Your task to perform on an android device: set the timer Image 0: 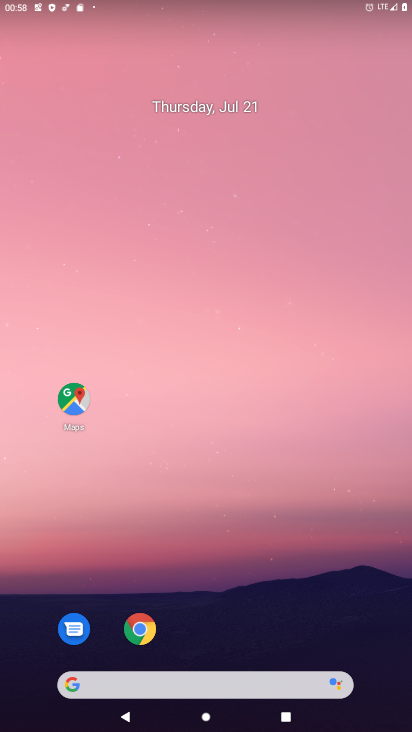
Step 0: drag from (242, 215) to (245, 122)
Your task to perform on an android device: set the timer Image 1: 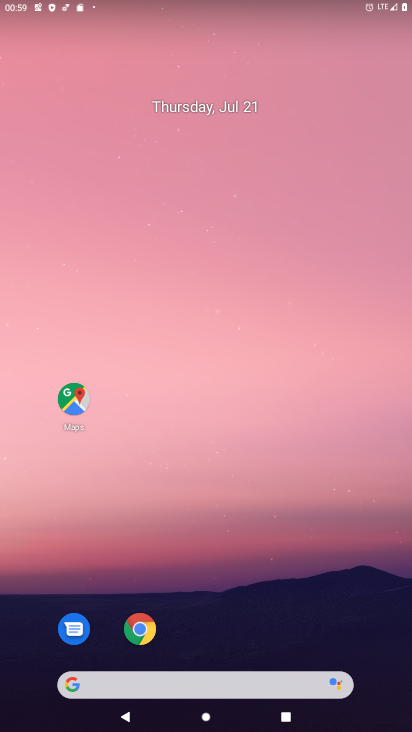
Step 1: drag from (275, 616) to (228, 108)
Your task to perform on an android device: set the timer Image 2: 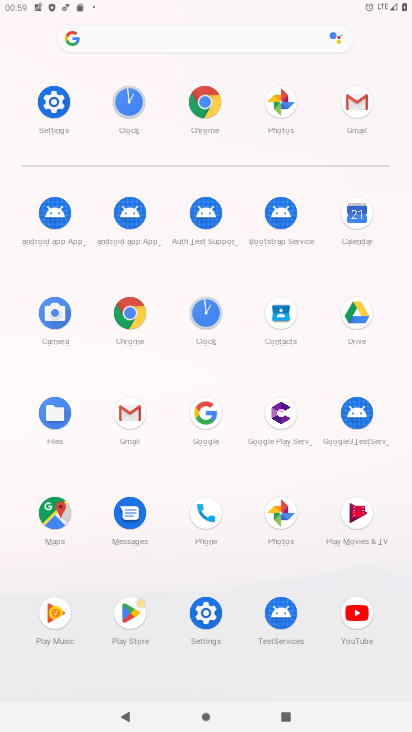
Step 2: click (205, 306)
Your task to perform on an android device: set the timer Image 3: 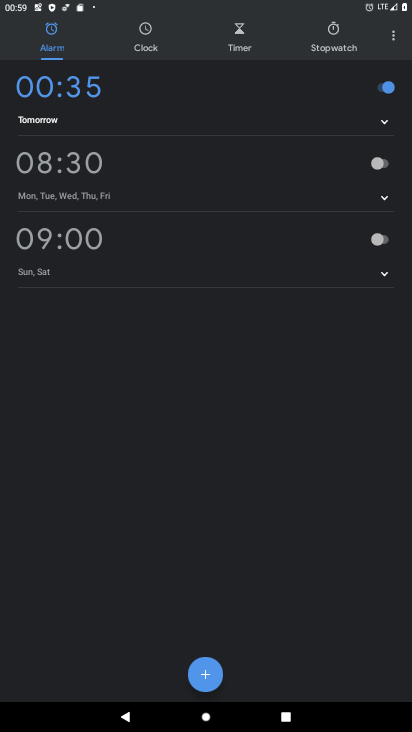
Step 3: click (257, 35)
Your task to perform on an android device: set the timer Image 4: 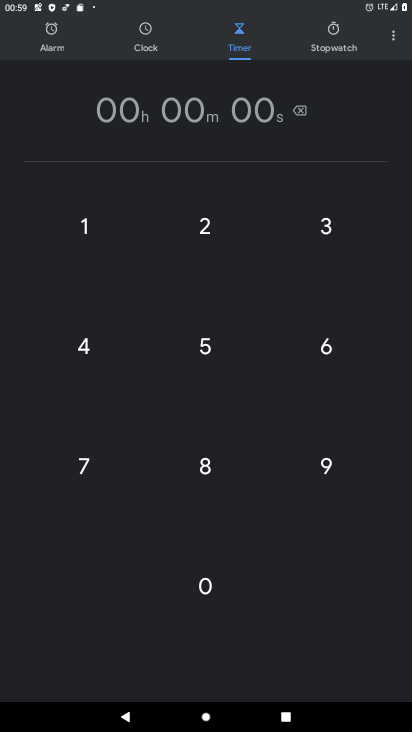
Step 4: click (204, 351)
Your task to perform on an android device: set the timer Image 5: 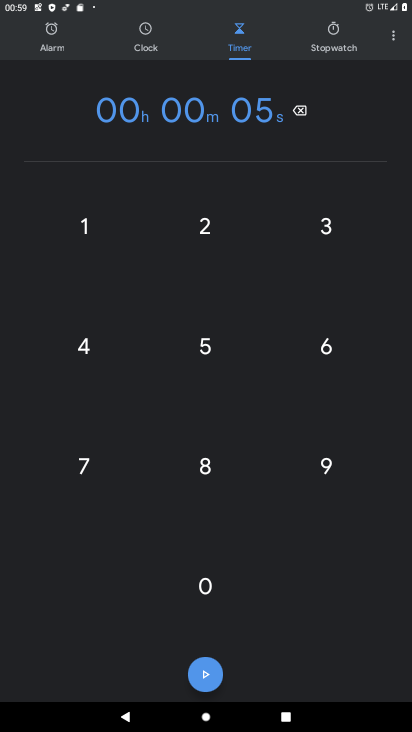
Step 5: task complete